Your task to perform on an android device: change keyboard looks Image 0: 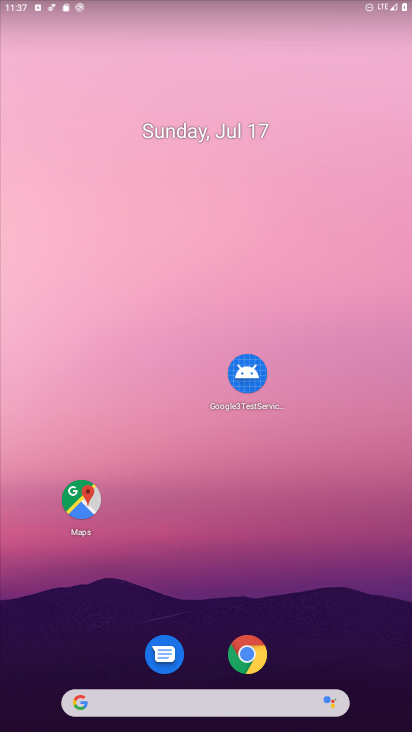
Step 0: drag from (205, 598) to (178, 65)
Your task to perform on an android device: change keyboard looks Image 1: 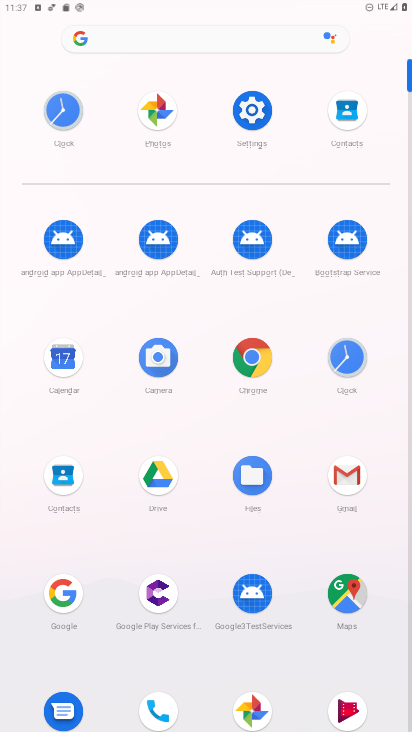
Step 1: click (242, 120)
Your task to perform on an android device: change keyboard looks Image 2: 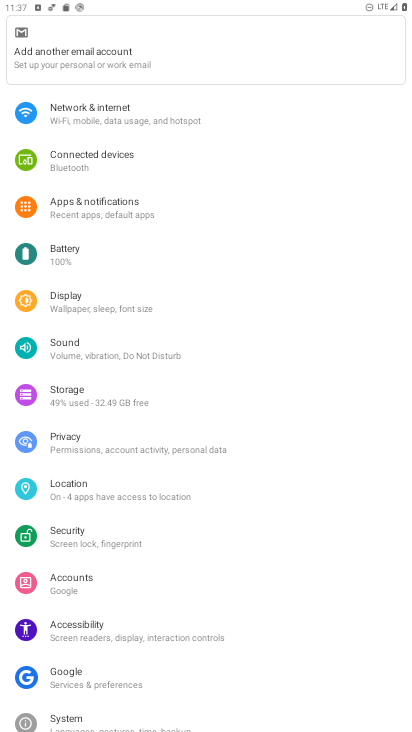
Step 2: drag from (176, 654) to (258, 188)
Your task to perform on an android device: change keyboard looks Image 3: 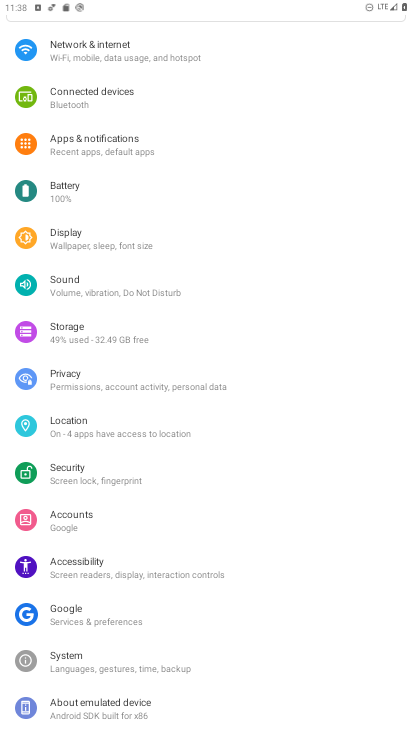
Step 3: click (84, 658)
Your task to perform on an android device: change keyboard looks Image 4: 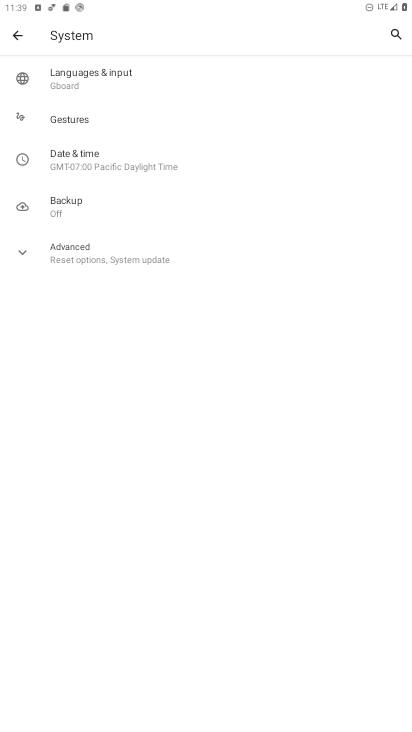
Step 4: click (94, 91)
Your task to perform on an android device: change keyboard looks Image 5: 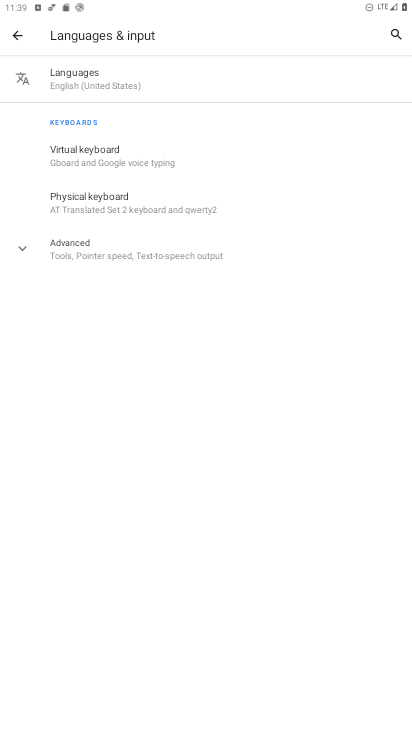
Step 5: click (100, 154)
Your task to perform on an android device: change keyboard looks Image 6: 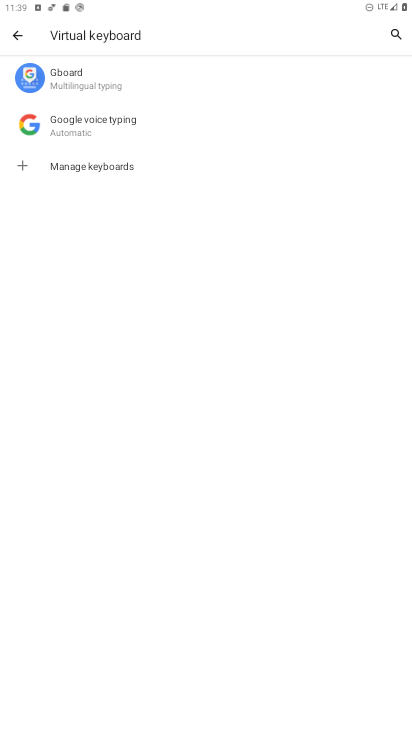
Step 6: click (84, 87)
Your task to perform on an android device: change keyboard looks Image 7: 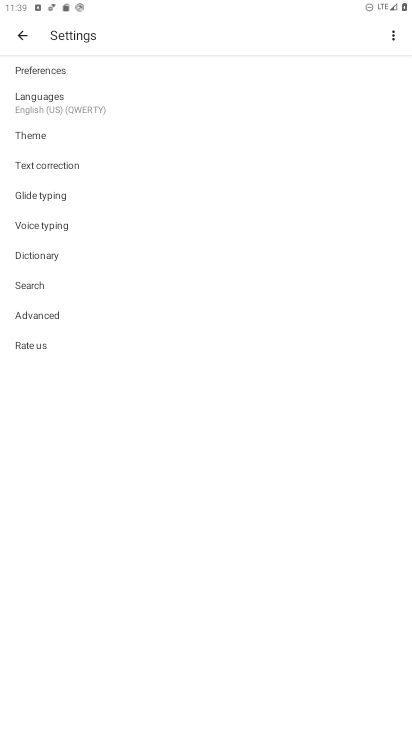
Step 7: click (44, 138)
Your task to perform on an android device: change keyboard looks Image 8: 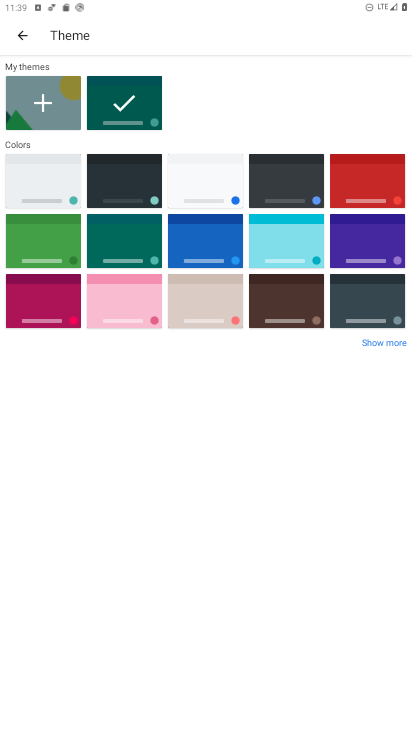
Step 8: click (283, 187)
Your task to perform on an android device: change keyboard looks Image 9: 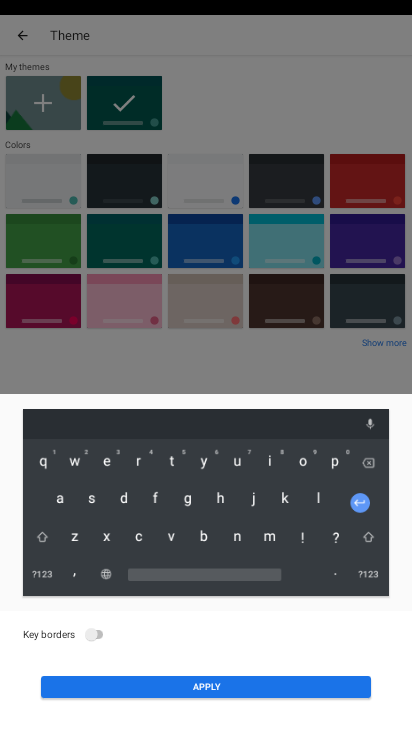
Step 9: click (241, 686)
Your task to perform on an android device: change keyboard looks Image 10: 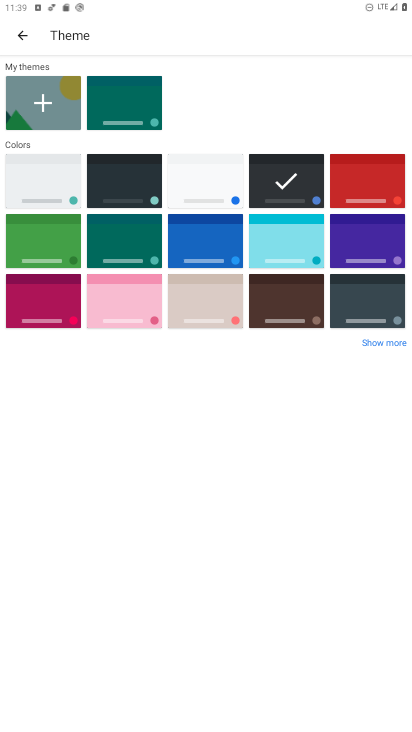
Step 10: task complete